Your task to perform on an android device: check google app version Image 0: 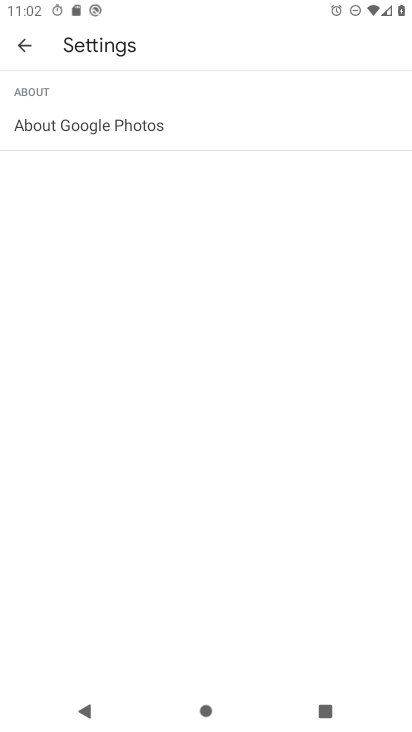
Step 0: press back button
Your task to perform on an android device: check google app version Image 1: 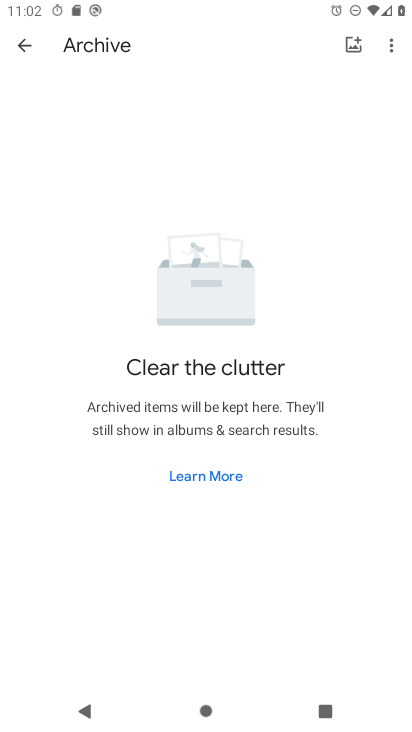
Step 1: press back button
Your task to perform on an android device: check google app version Image 2: 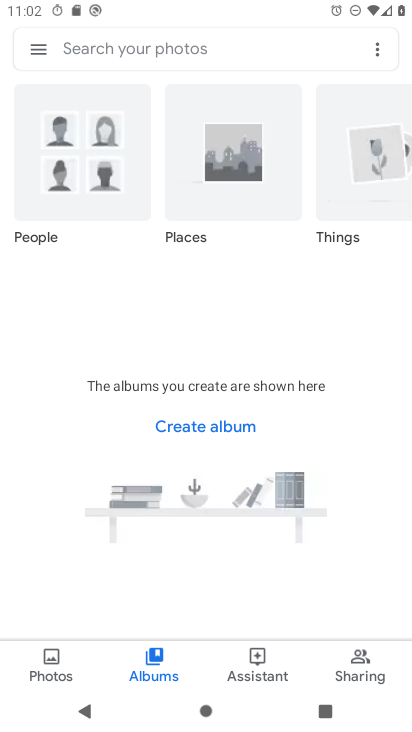
Step 2: press back button
Your task to perform on an android device: check google app version Image 3: 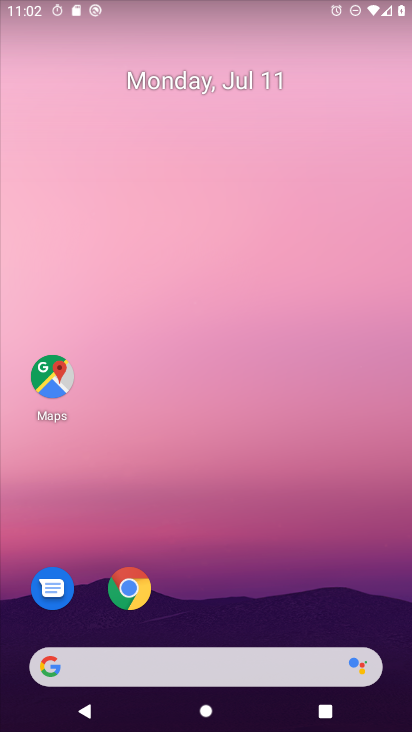
Step 3: drag from (229, 596) to (214, 13)
Your task to perform on an android device: check google app version Image 4: 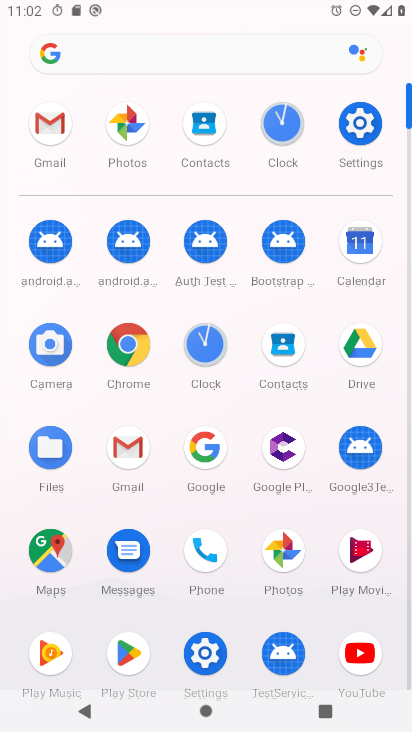
Step 4: click (213, 444)
Your task to perform on an android device: check google app version Image 5: 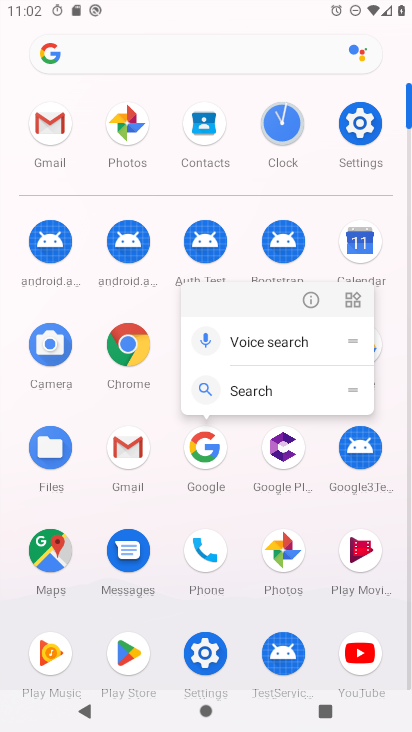
Step 5: click (305, 296)
Your task to perform on an android device: check google app version Image 6: 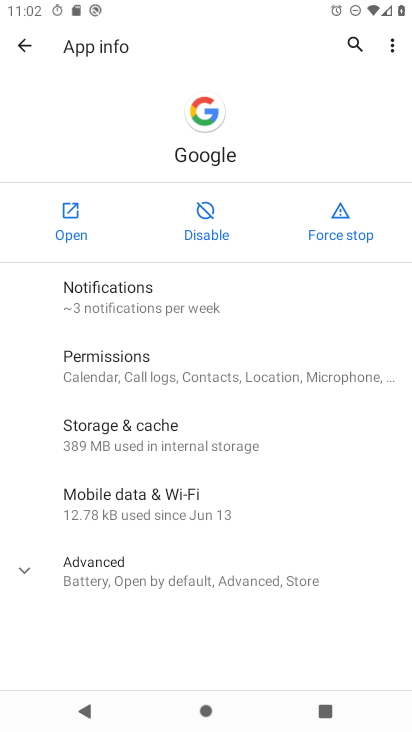
Step 6: drag from (196, 569) to (300, 4)
Your task to perform on an android device: check google app version Image 7: 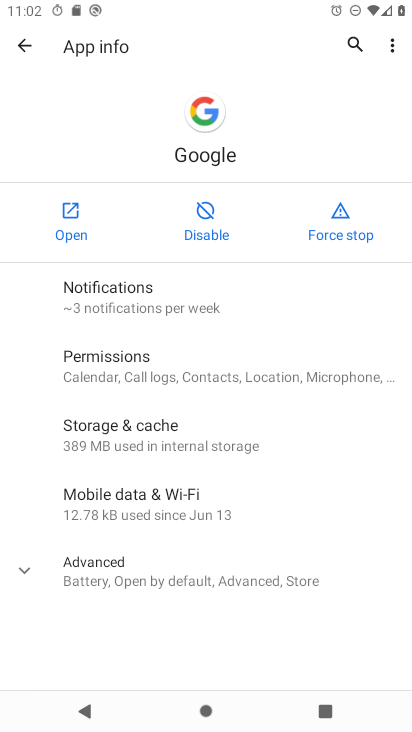
Step 7: click (98, 579)
Your task to perform on an android device: check google app version Image 8: 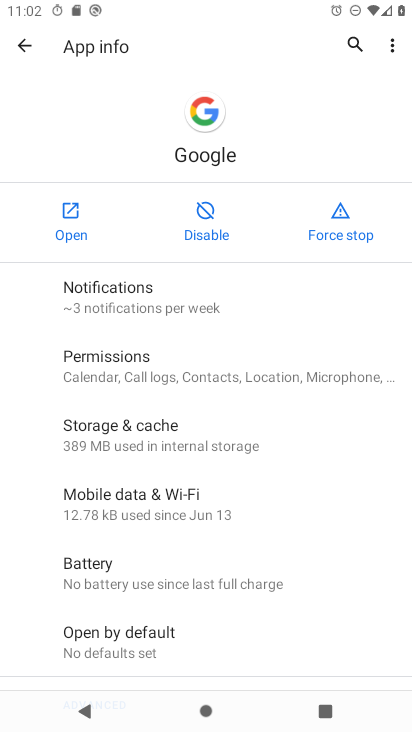
Step 8: task complete